Your task to perform on an android device: set an alarm Image 0: 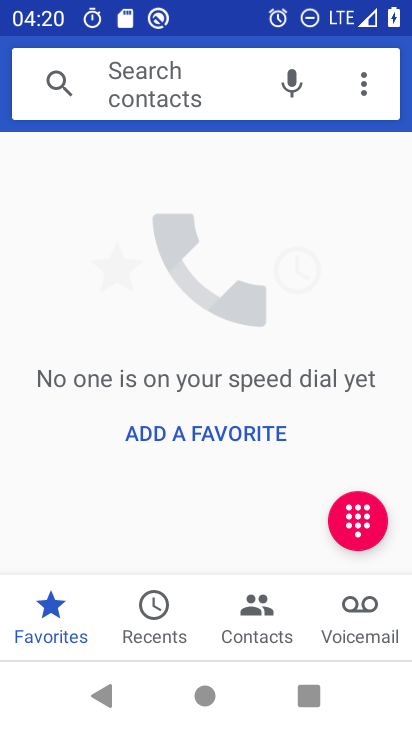
Step 0: press home button
Your task to perform on an android device: set an alarm Image 1: 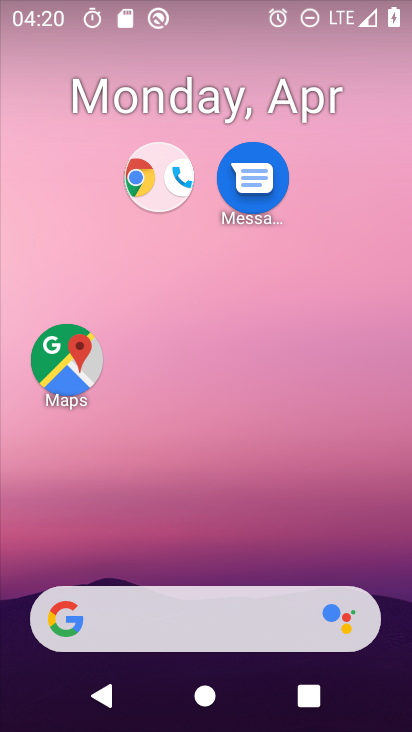
Step 1: drag from (273, 562) to (246, 12)
Your task to perform on an android device: set an alarm Image 2: 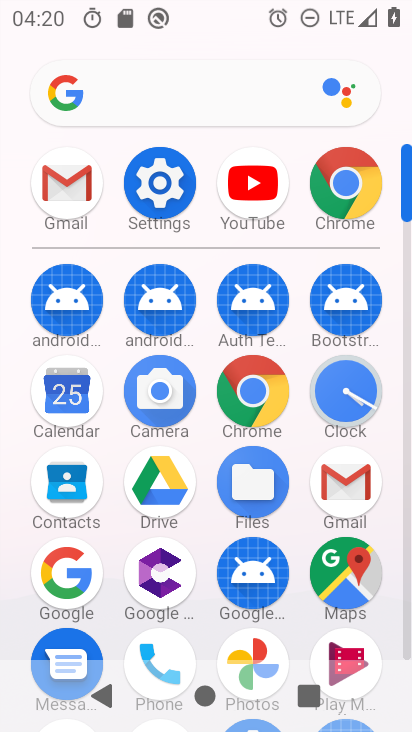
Step 2: click (343, 388)
Your task to perform on an android device: set an alarm Image 3: 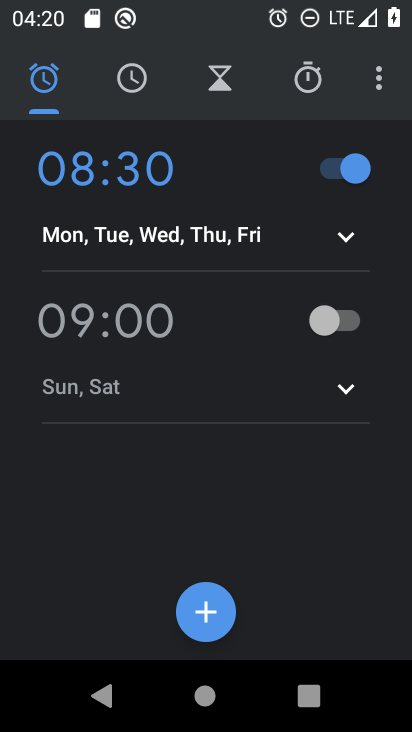
Step 3: task complete